Your task to perform on an android device: Toggle the flashlight Image 0: 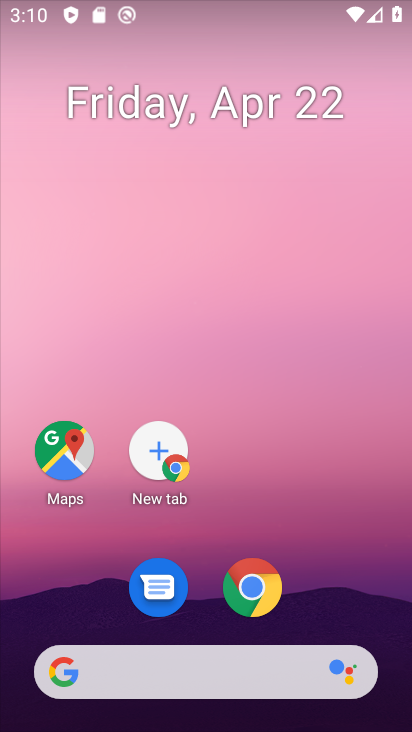
Step 0: drag from (205, 619) to (172, 27)
Your task to perform on an android device: Toggle the flashlight Image 1: 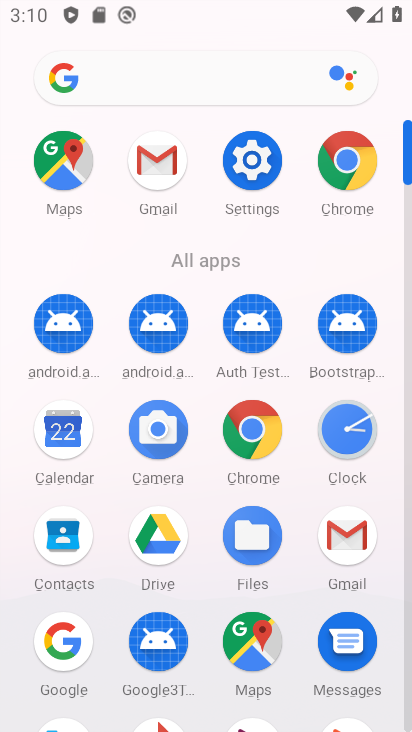
Step 1: click (259, 150)
Your task to perform on an android device: Toggle the flashlight Image 2: 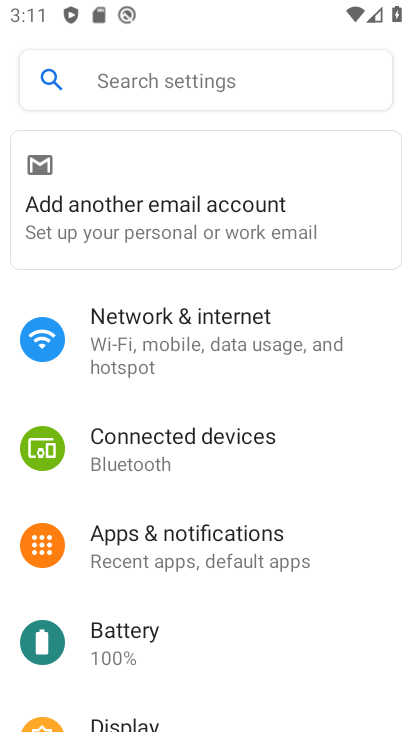
Step 2: task complete